Your task to perform on an android device: open app "Google Sheets" (install if not already installed) Image 0: 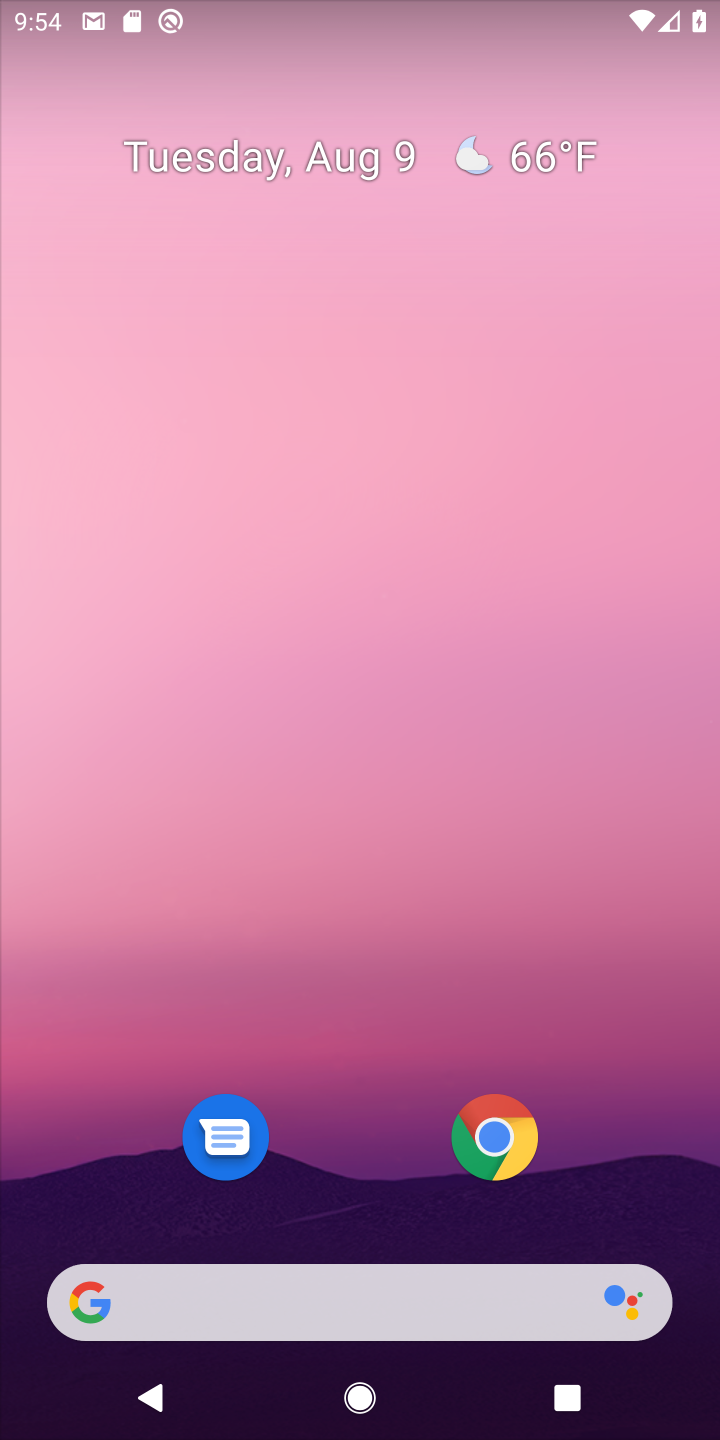
Step 0: drag from (333, 1117) to (322, 424)
Your task to perform on an android device: open app "Google Sheets" (install if not already installed) Image 1: 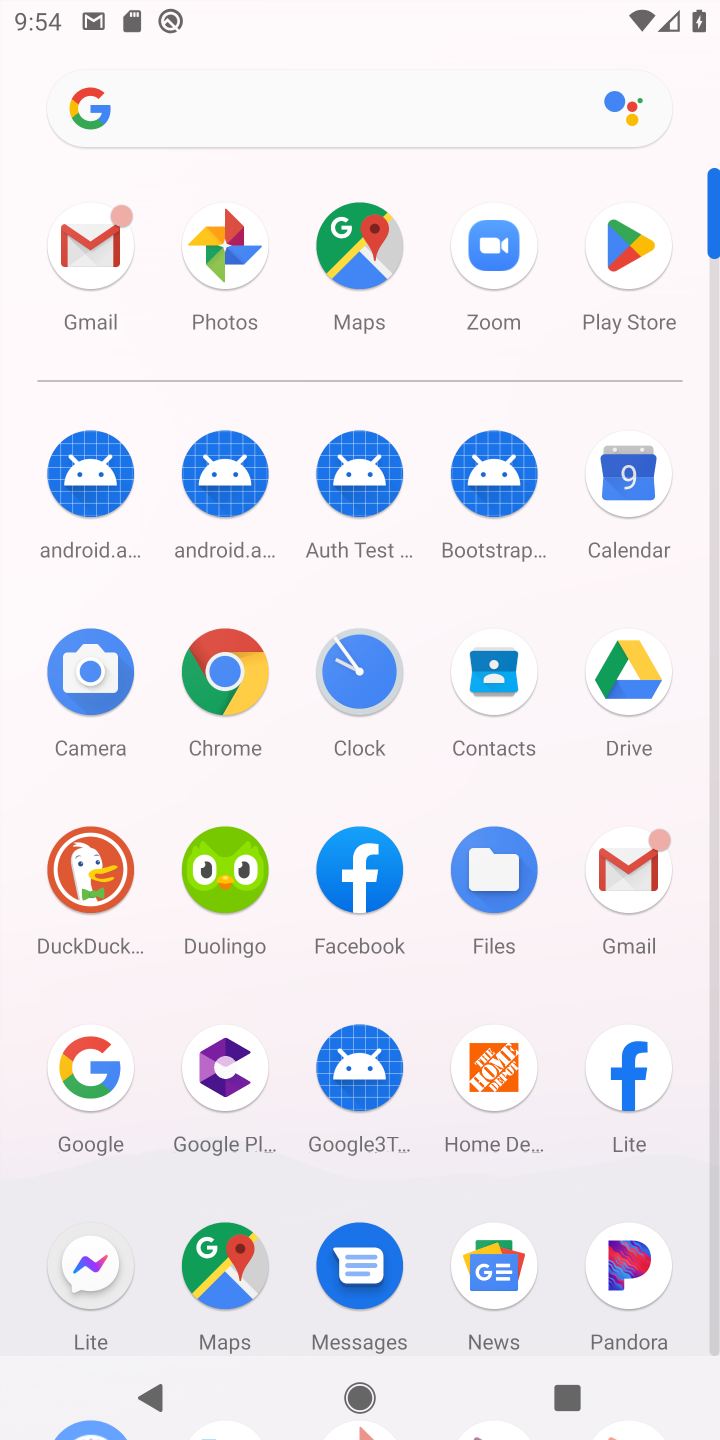
Step 1: click (617, 249)
Your task to perform on an android device: open app "Google Sheets" (install if not already installed) Image 2: 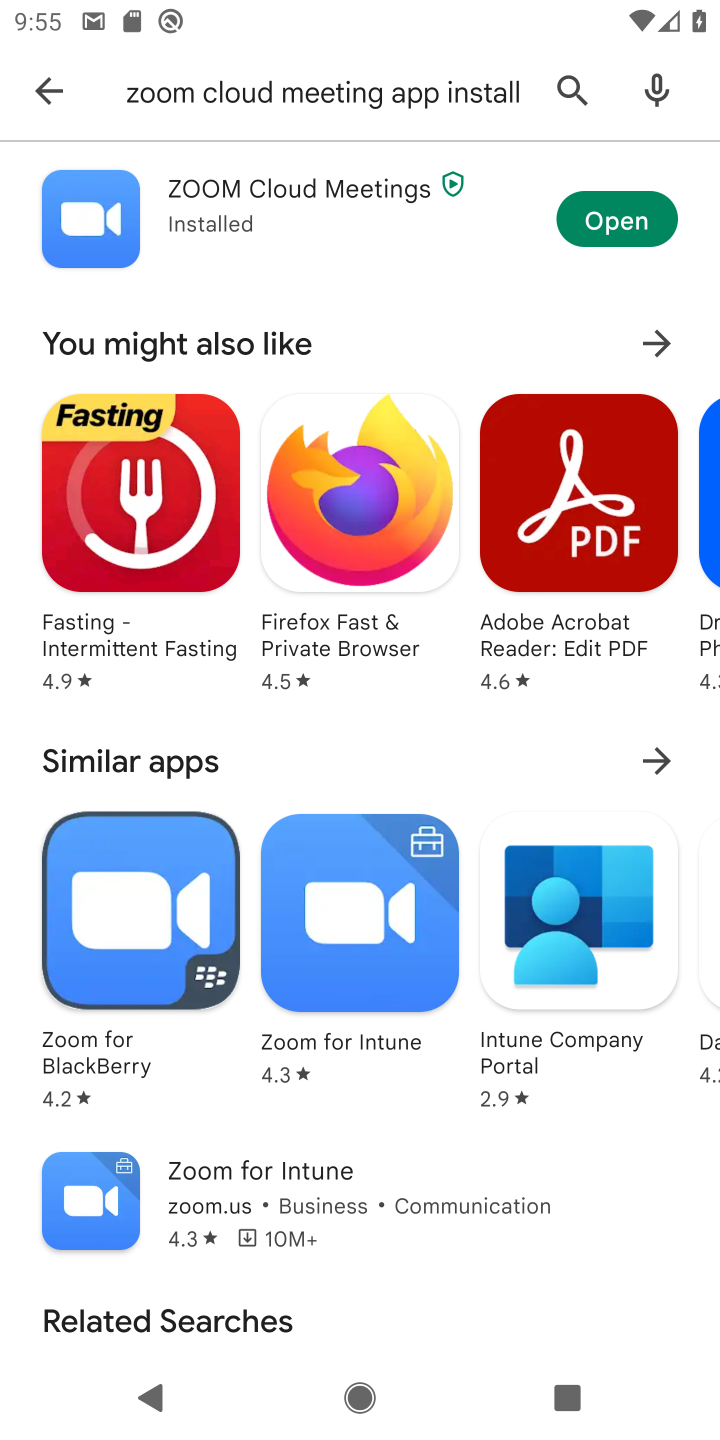
Step 2: click (575, 77)
Your task to perform on an android device: open app "Google Sheets" (install if not already installed) Image 3: 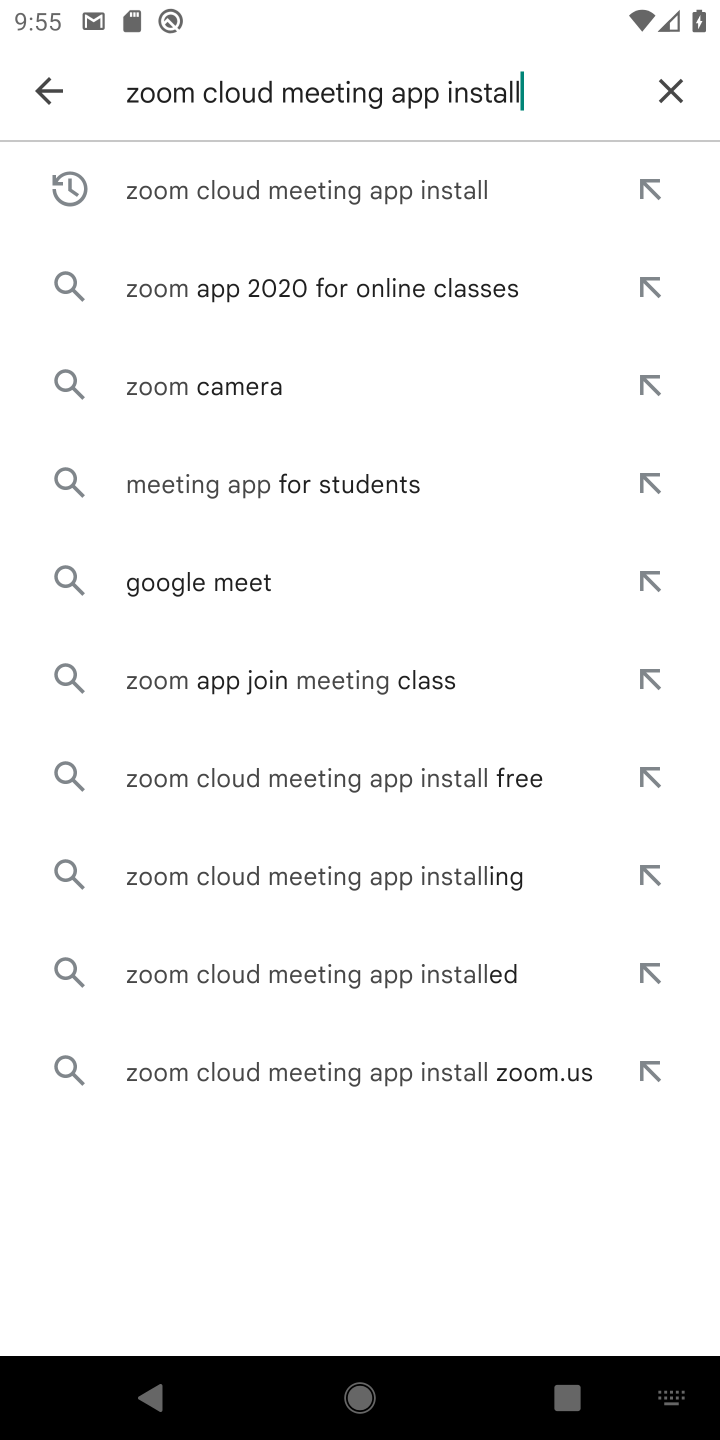
Step 3: click (661, 87)
Your task to perform on an android device: open app "Google Sheets" (install if not already installed) Image 4: 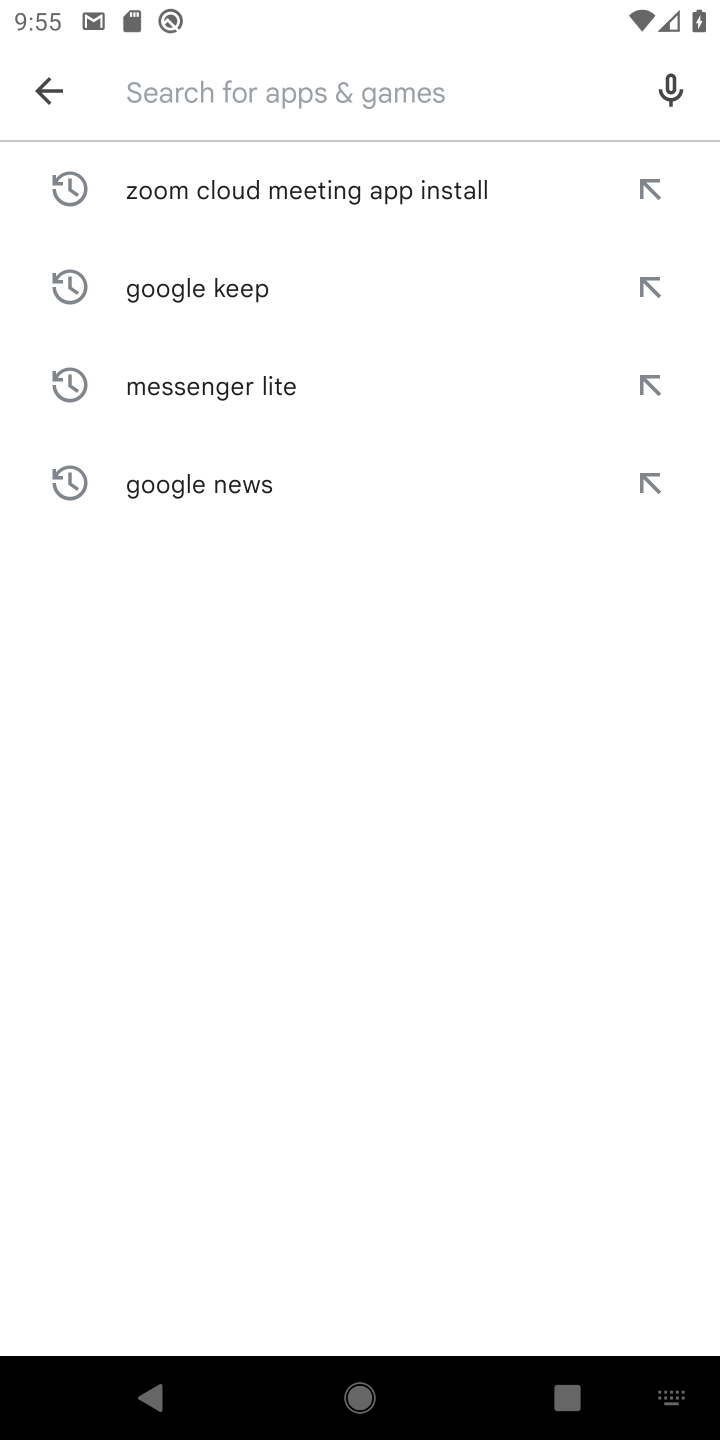
Step 4: type "Google Sheets"
Your task to perform on an android device: open app "Google Sheets" (install if not already installed) Image 5: 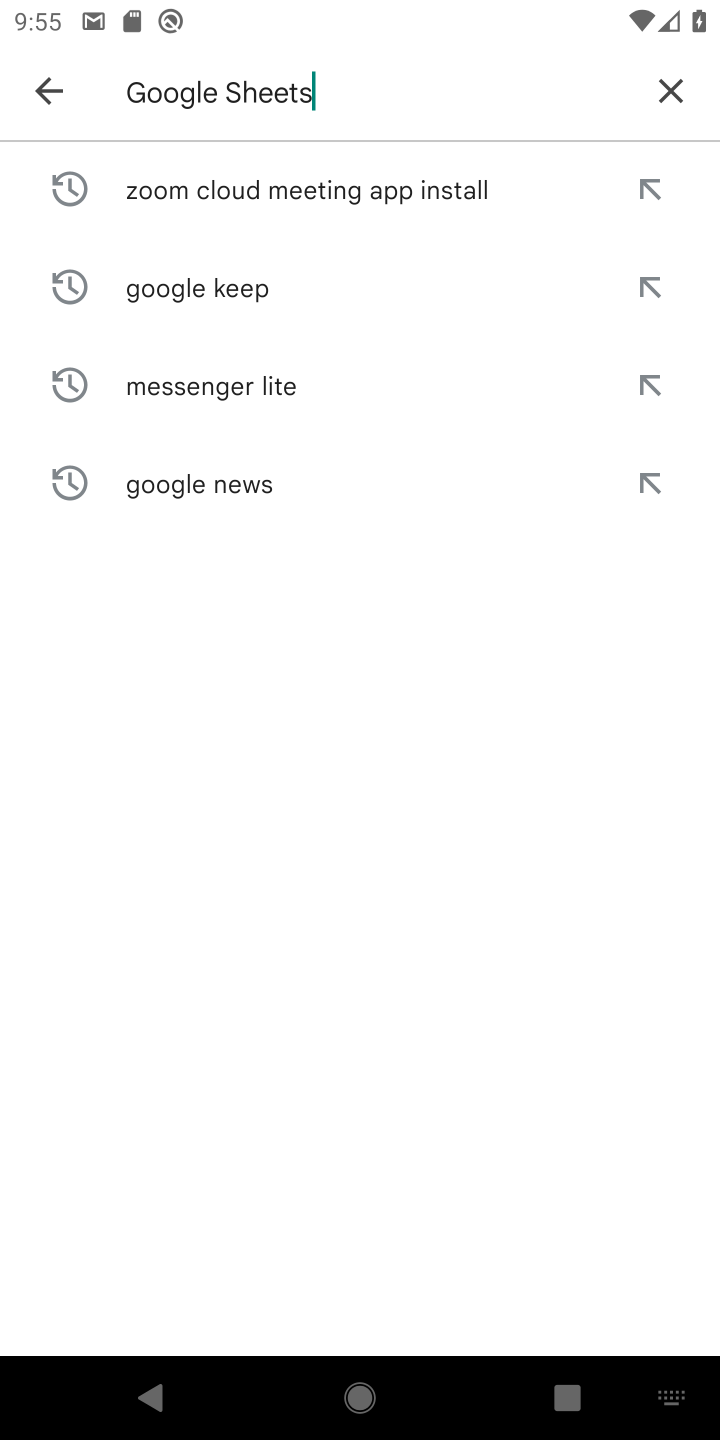
Step 5: type ""
Your task to perform on an android device: open app "Google Sheets" (install if not already installed) Image 6: 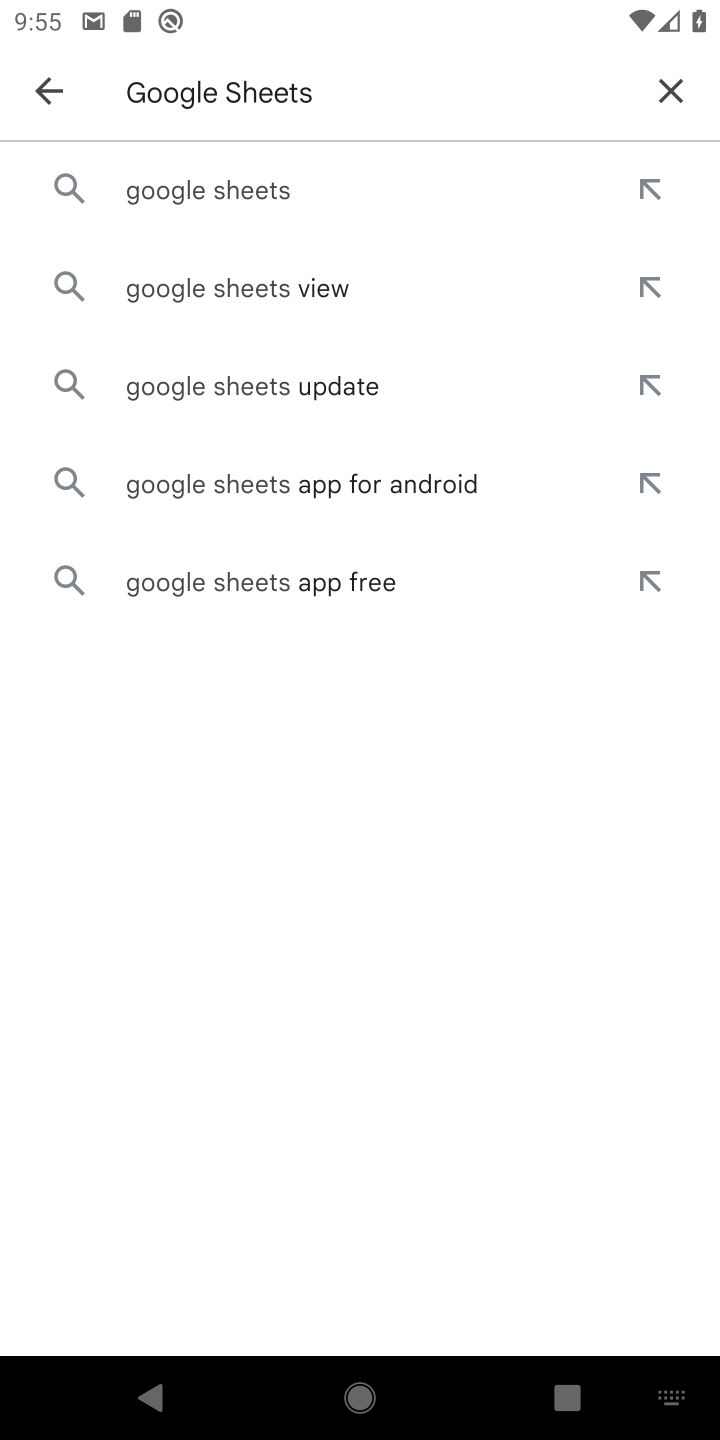
Step 6: click (304, 195)
Your task to perform on an android device: open app "Google Sheets" (install if not already installed) Image 7: 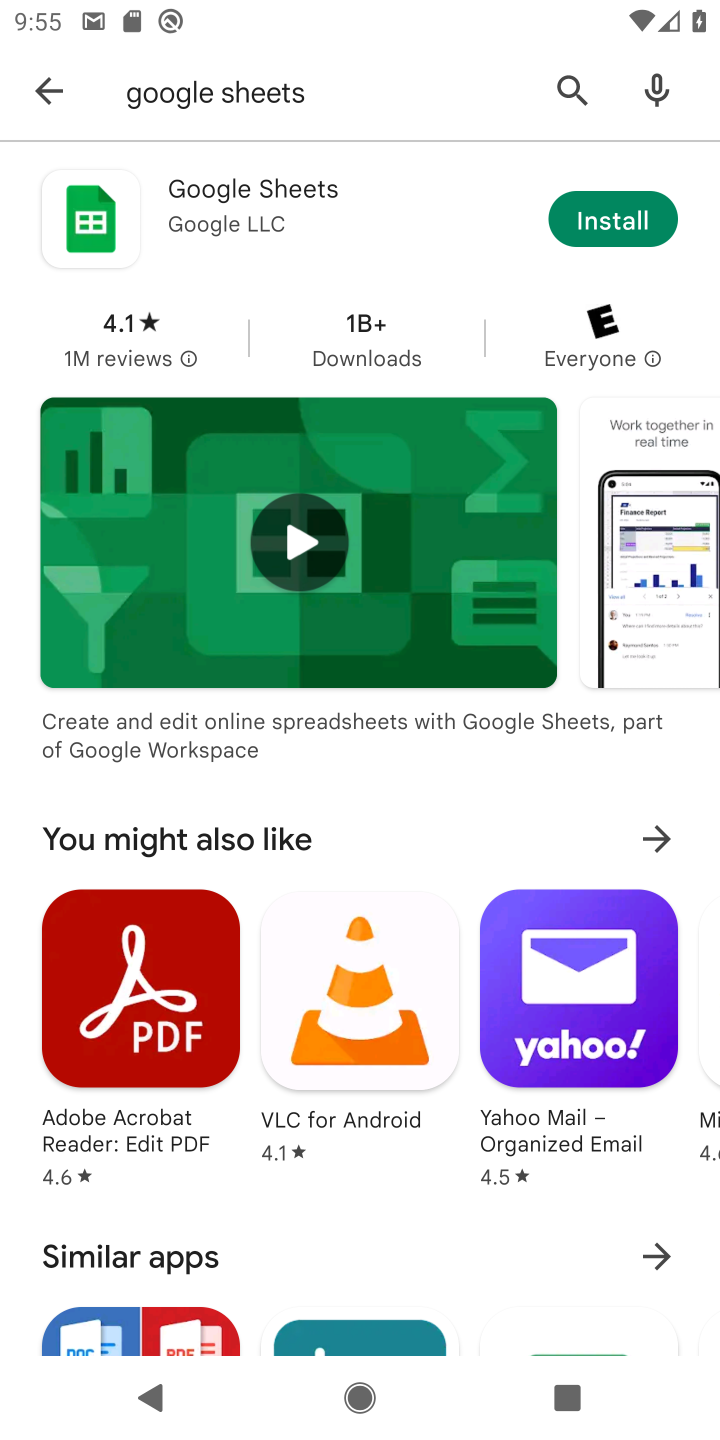
Step 7: click (655, 200)
Your task to perform on an android device: open app "Google Sheets" (install if not already installed) Image 8: 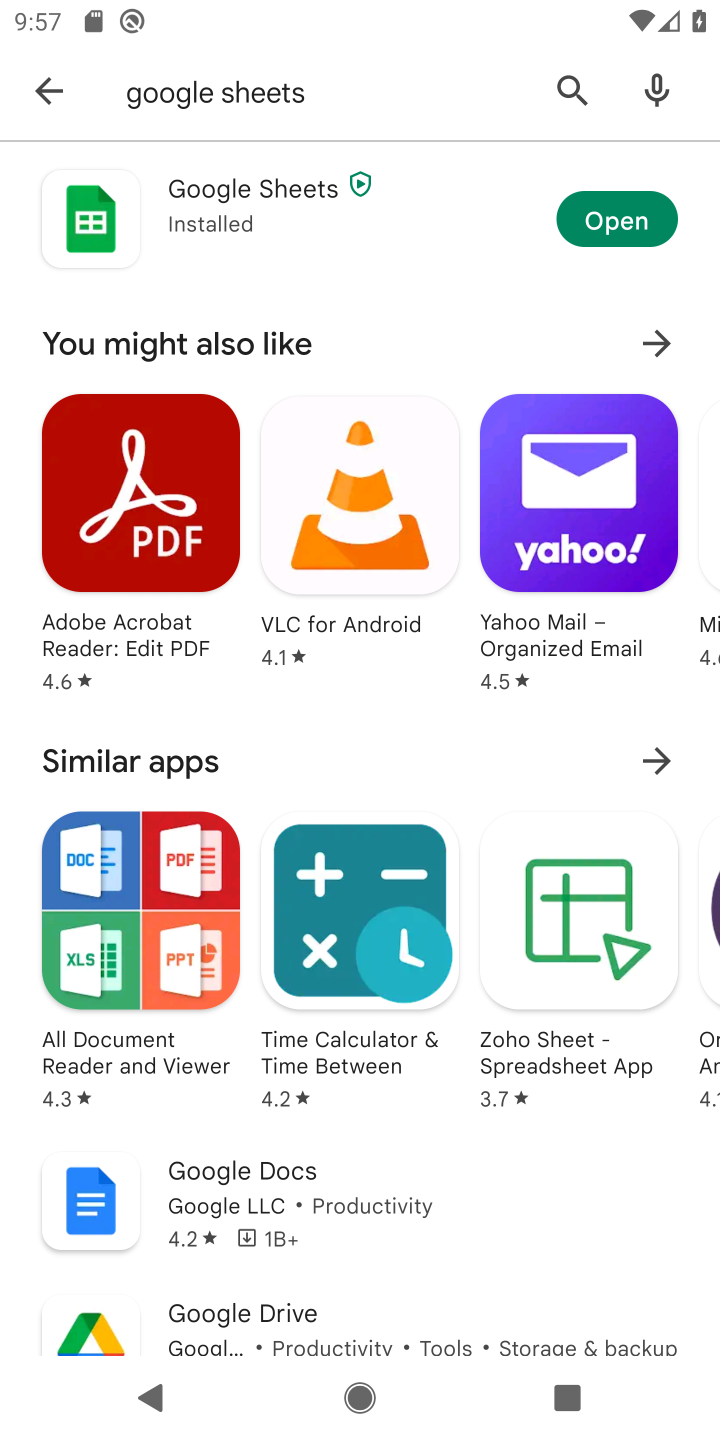
Step 8: click (615, 216)
Your task to perform on an android device: open app "Google Sheets" (install if not already installed) Image 9: 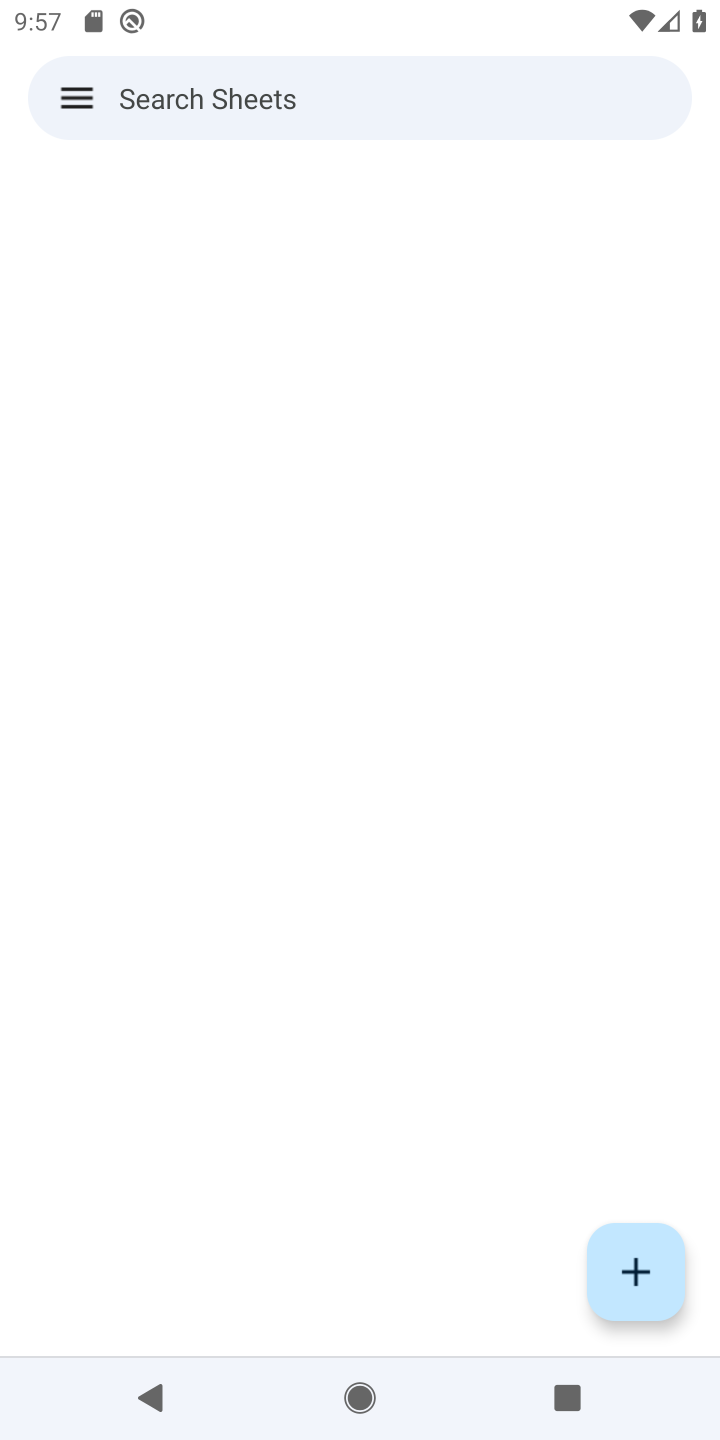
Step 9: task complete